Your task to perform on an android device: change the clock style Image 0: 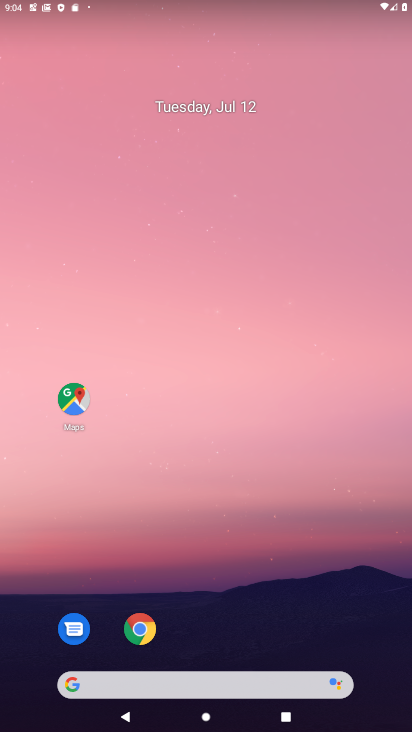
Step 0: drag from (201, 661) to (249, 130)
Your task to perform on an android device: change the clock style Image 1: 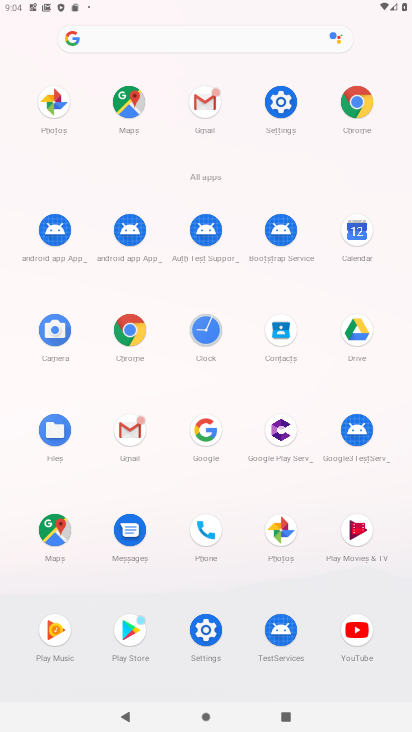
Step 1: click (203, 340)
Your task to perform on an android device: change the clock style Image 2: 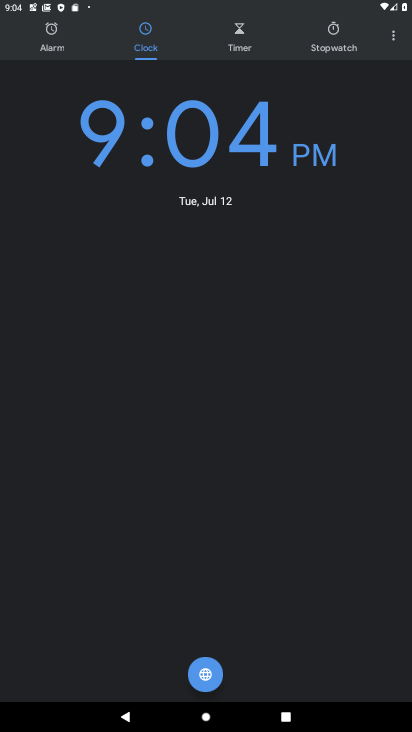
Step 2: click (395, 36)
Your task to perform on an android device: change the clock style Image 3: 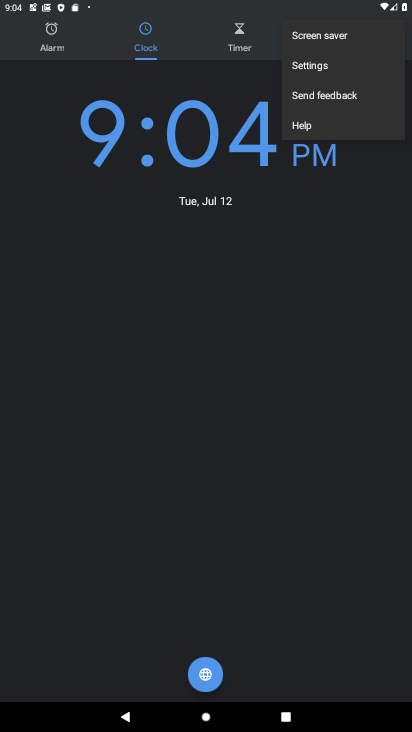
Step 3: click (346, 71)
Your task to perform on an android device: change the clock style Image 4: 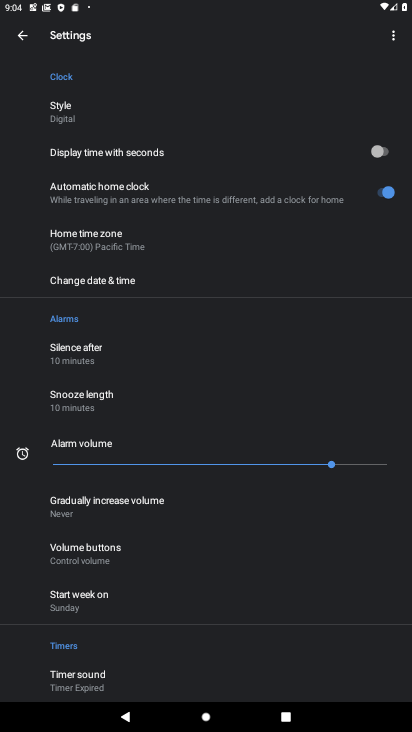
Step 4: click (106, 116)
Your task to perform on an android device: change the clock style Image 5: 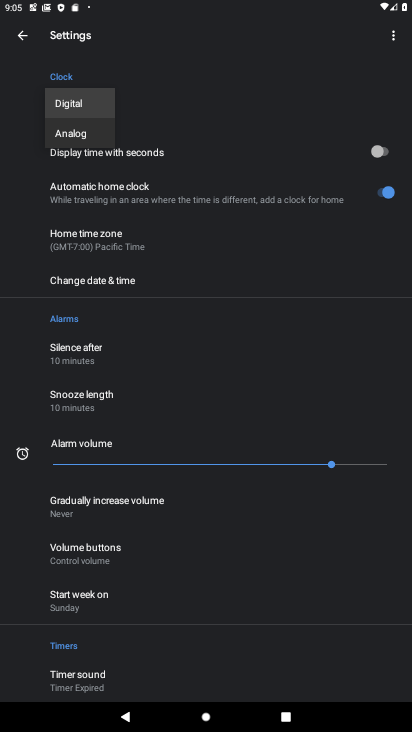
Step 5: click (88, 134)
Your task to perform on an android device: change the clock style Image 6: 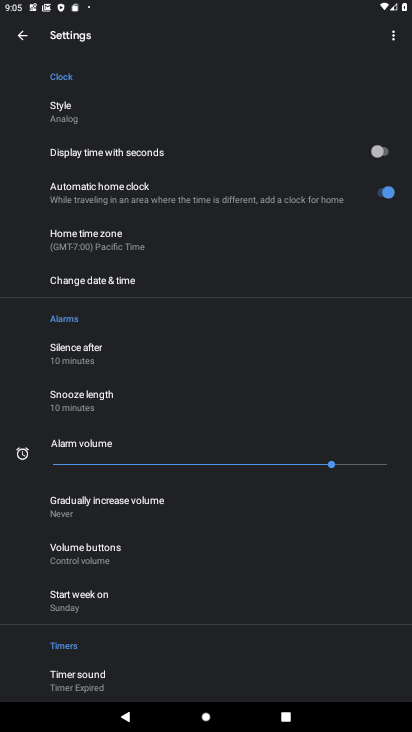
Step 6: task complete